Your task to perform on an android device: toggle pop-ups in chrome Image 0: 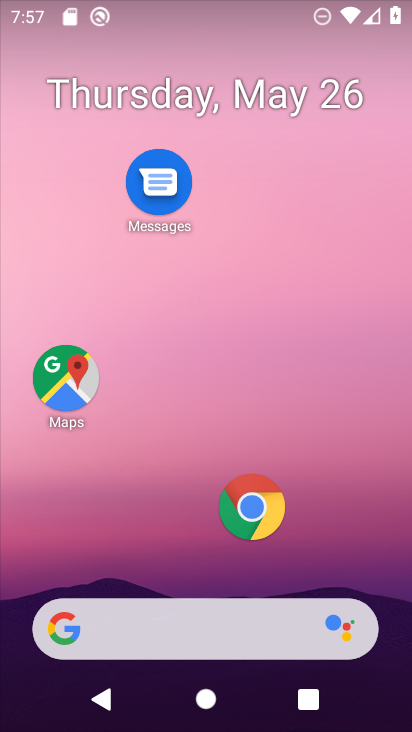
Step 0: click (259, 509)
Your task to perform on an android device: toggle pop-ups in chrome Image 1: 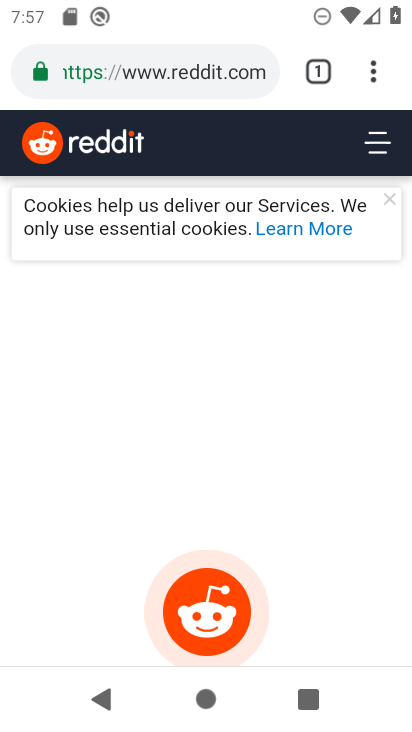
Step 1: click (368, 72)
Your task to perform on an android device: toggle pop-ups in chrome Image 2: 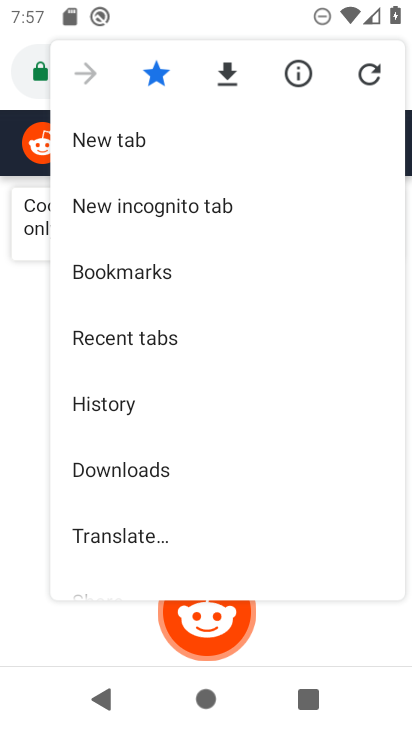
Step 2: drag from (160, 467) to (164, 162)
Your task to perform on an android device: toggle pop-ups in chrome Image 3: 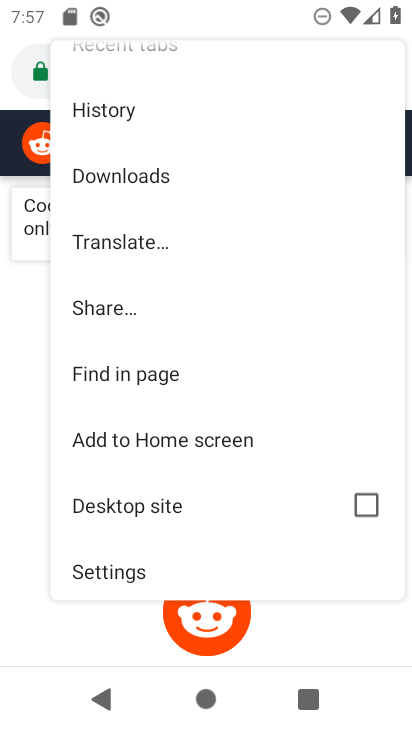
Step 3: click (135, 563)
Your task to perform on an android device: toggle pop-ups in chrome Image 4: 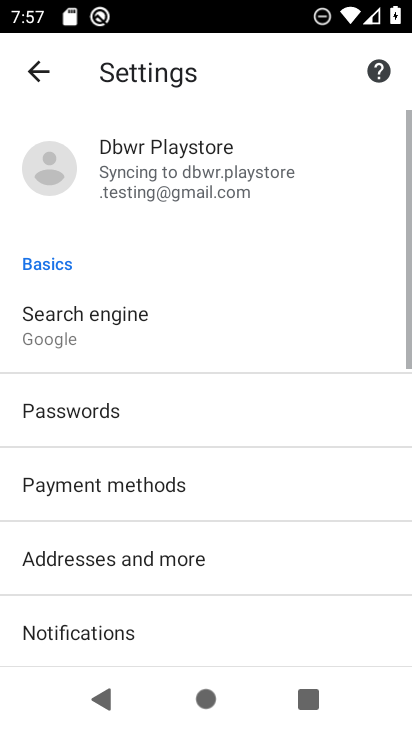
Step 4: drag from (135, 563) to (213, 196)
Your task to perform on an android device: toggle pop-ups in chrome Image 5: 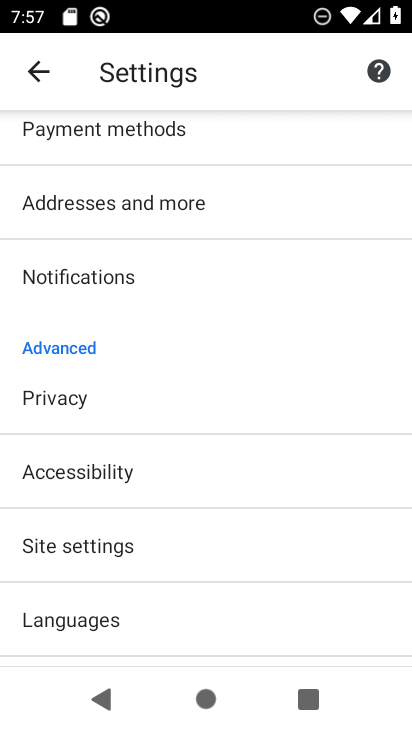
Step 5: click (110, 545)
Your task to perform on an android device: toggle pop-ups in chrome Image 6: 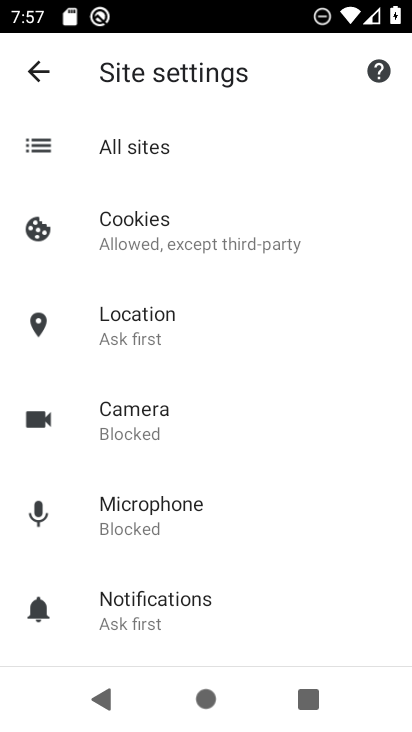
Step 6: drag from (106, 587) to (162, 321)
Your task to perform on an android device: toggle pop-ups in chrome Image 7: 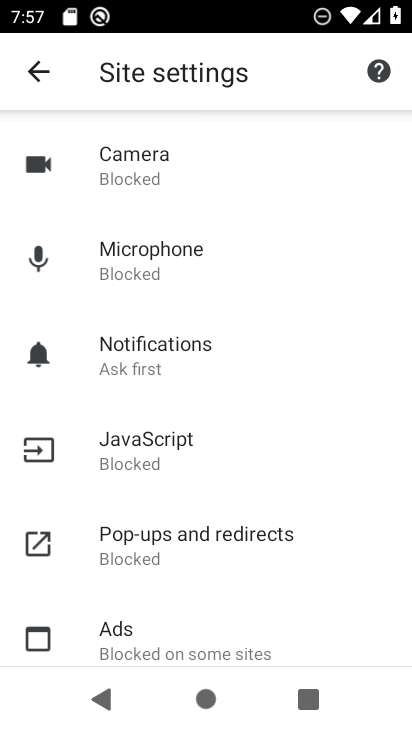
Step 7: click (130, 553)
Your task to perform on an android device: toggle pop-ups in chrome Image 8: 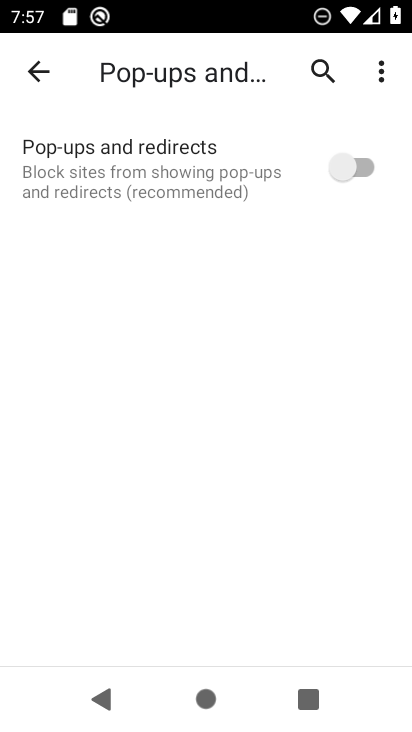
Step 8: click (356, 176)
Your task to perform on an android device: toggle pop-ups in chrome Image 9: 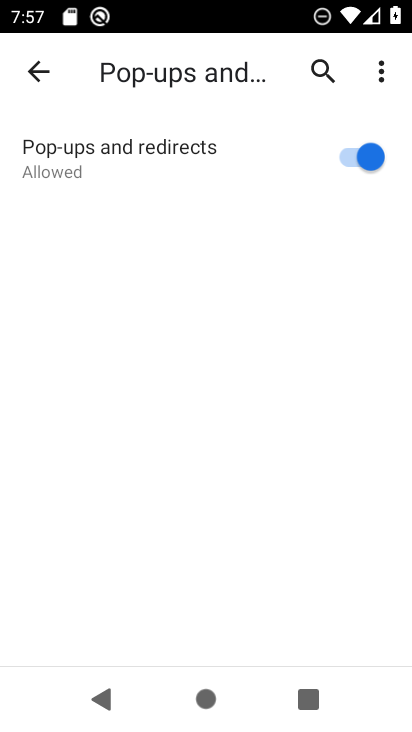
Step 9: task complete